Your task to perform on an android device: toggle priority inbox in the gmail app Image 0: 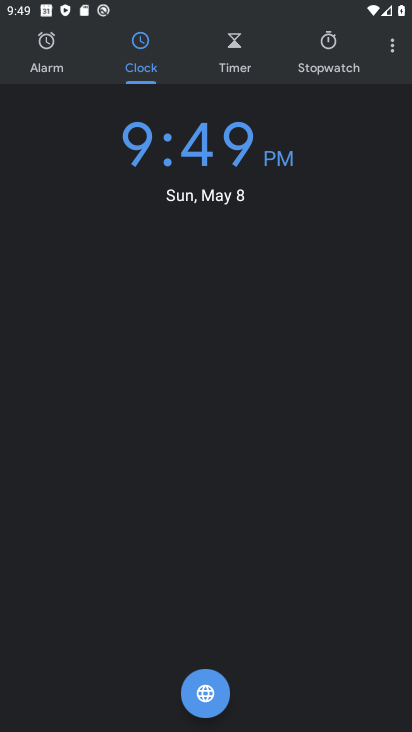
Step 0: press home button
Your task to perform on an android device: toggle priority inbox in the gmail app Image 1: 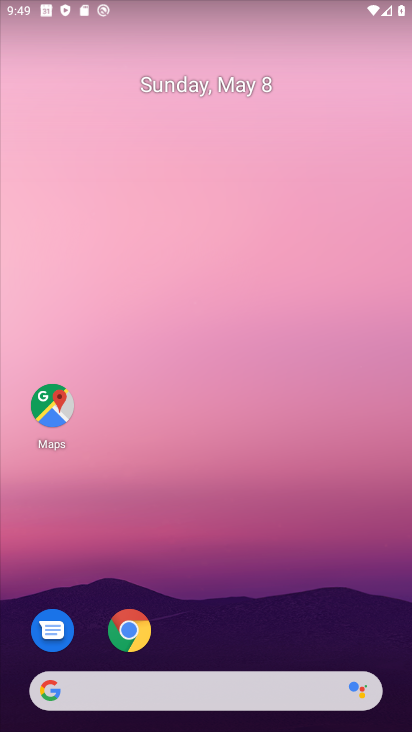
Step 1: drag from (227, 729) to (201, 143)
Your task to perform on an android device: toggle priority inbox in the gmail app Image 2: 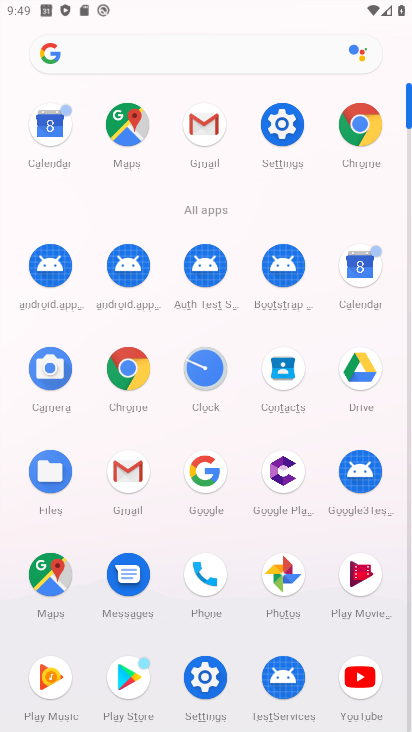
Step 2: click (133, 469)
Your task to perform on an android device: toggle priority inbox in the gmail app Image 3: 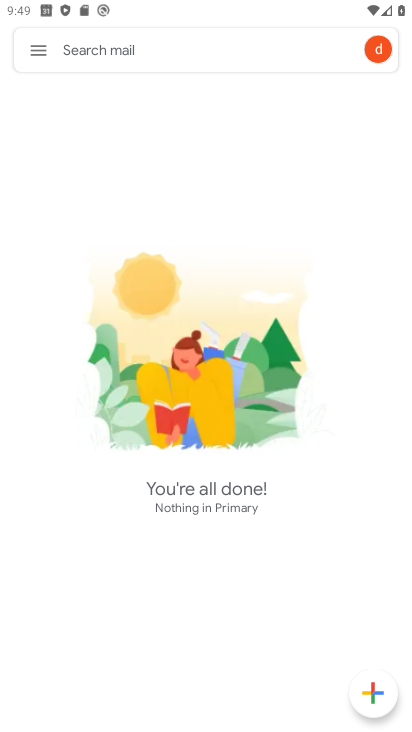
Step 3: click (37, 49)
Your task to perform on an android device: toggle priority inbox in the gmail app Image 4: 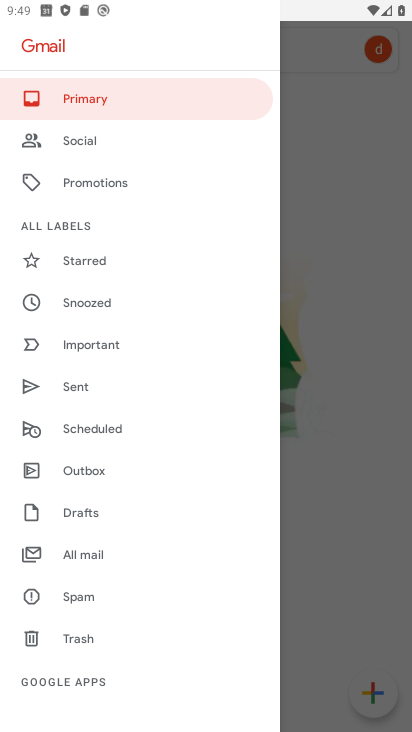
Step 4: drag from (131, 662) to (122, 358)
Your task to perform on an android device: toggle priority inbox in the gmail app Image 5: 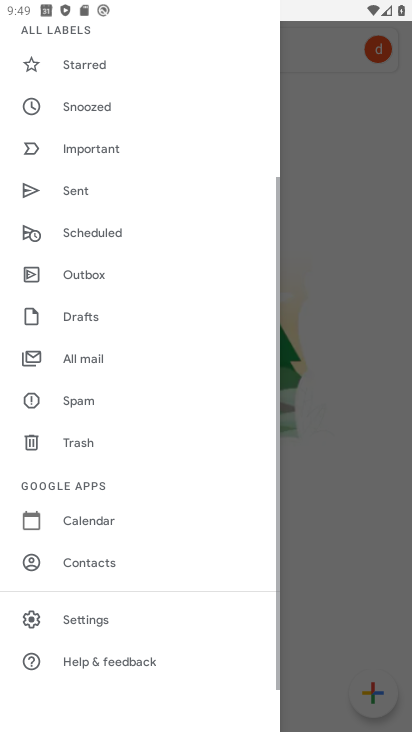
Step 5: click (82, 619)
Your task to perform on an android device: toggle priority inbox in the gmail app Image 6: 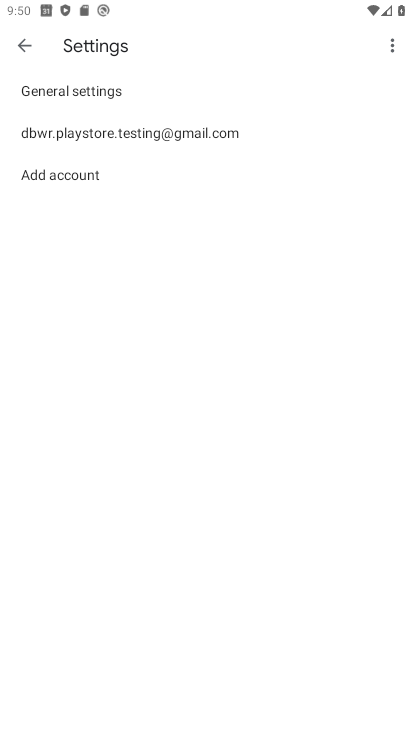
Step 6: click (158, 130)
Your task to perform on an android device: toggle priority inbox in the gmail app Image 7: 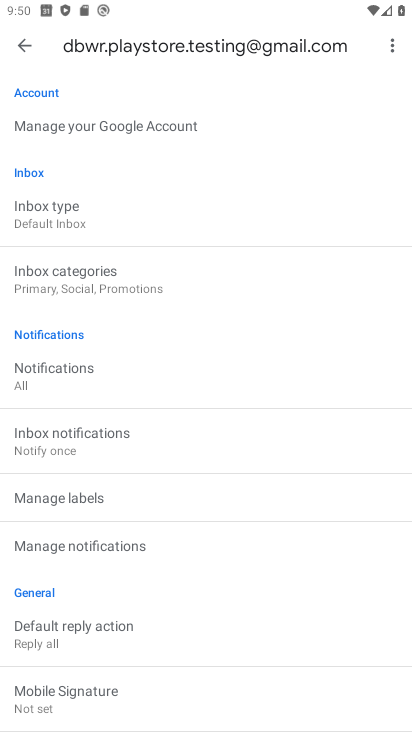
Step 7: click (44, 214)
Your task to perform on an android device: toggle priority inbox in the gmail app Image 8: 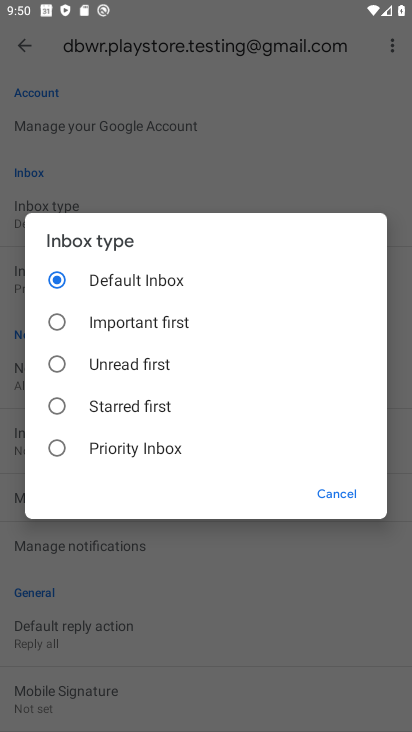
Step 8: click (56, 445)
Your task to perform on an android device: toggle priority inbox in the gmail app Image 9: 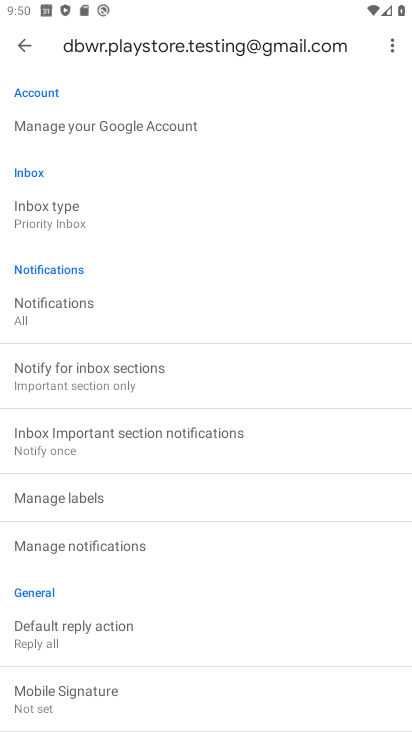
Step 9: task complete